Your task to perform on an android device: turn on translation in the chrome app Image 0: 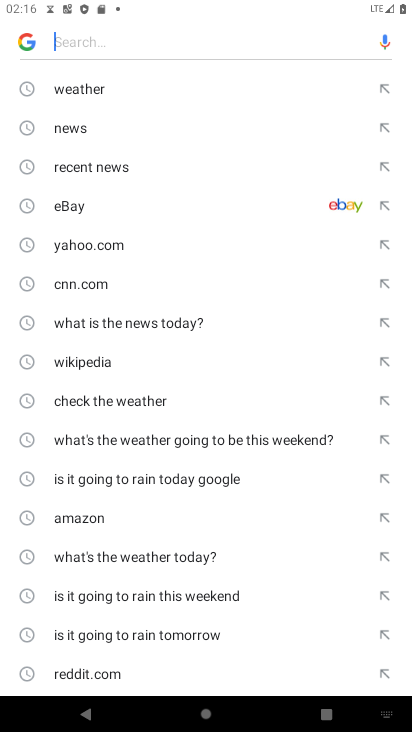
Step 0: press home button
Your task to perform on an android device: turn on translation in the chrome app Image 1: 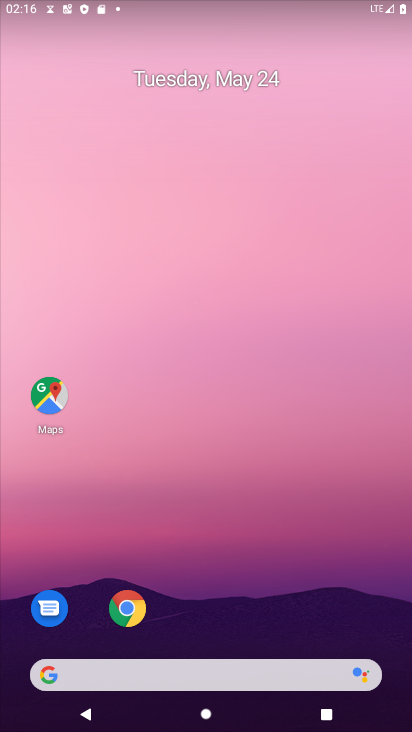
Step 1: drag from (250, 628) to (191, 52)
Your task to perform on an android device: turn on translation in the chrome app Image 2: 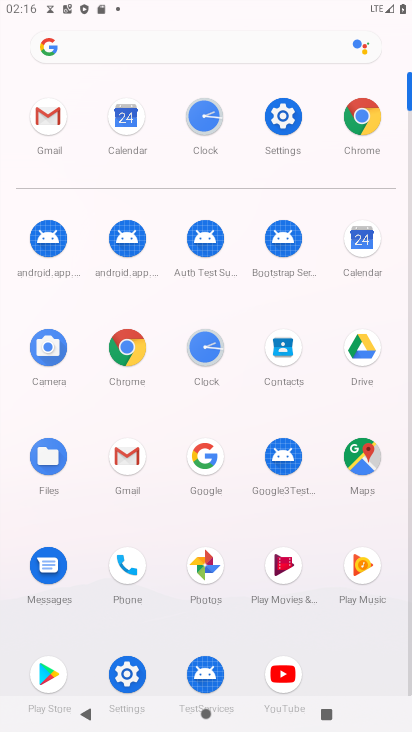
Step 2: click (372, 122)
Your task to perform on an android device: turn on translation in the chrome app Image 3: 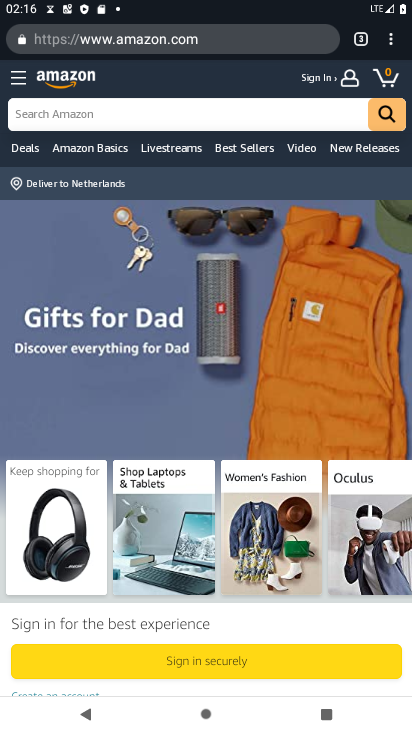
Step 3: click (391, 35)
Your task to perform on an android device: turn on translation in the chrome app Image 4: 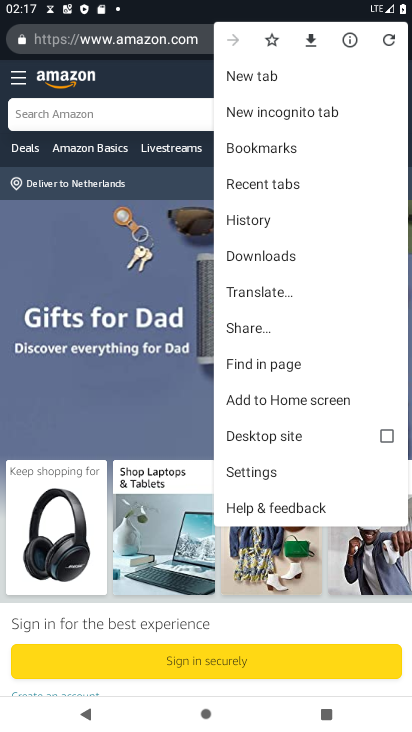
Step 4: click (246, 473)
Your task to perform on an android device: turn on translation in the chrome app Image 5: 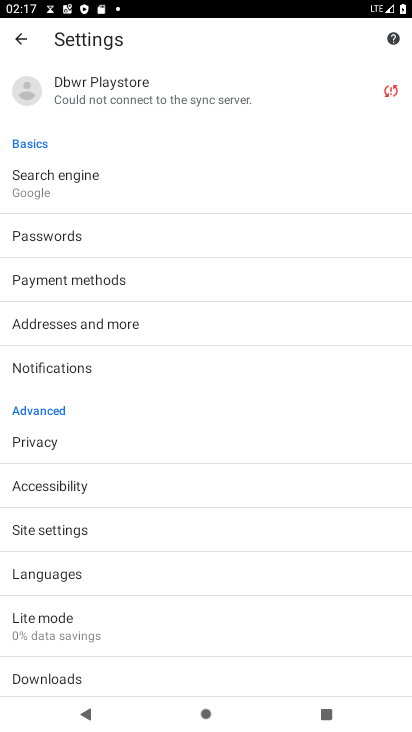
Step 5: click (101, 574)
Your task to perform on an android device: turn on translation in the chrome app Image 6: 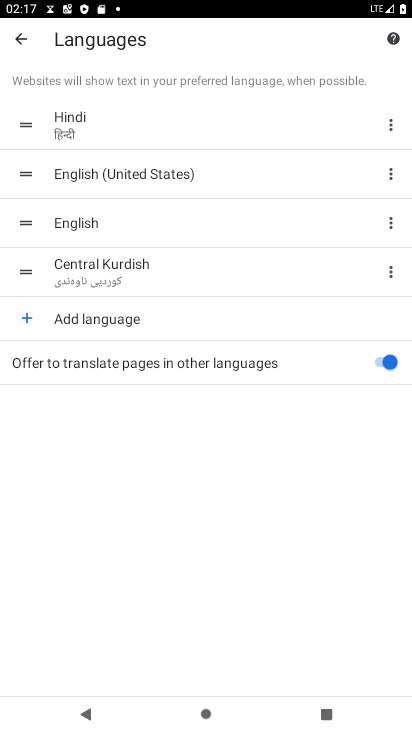
Step 6: task complete